Your task to perform on an android device: manage bookmarks in the chrome app Image 0: 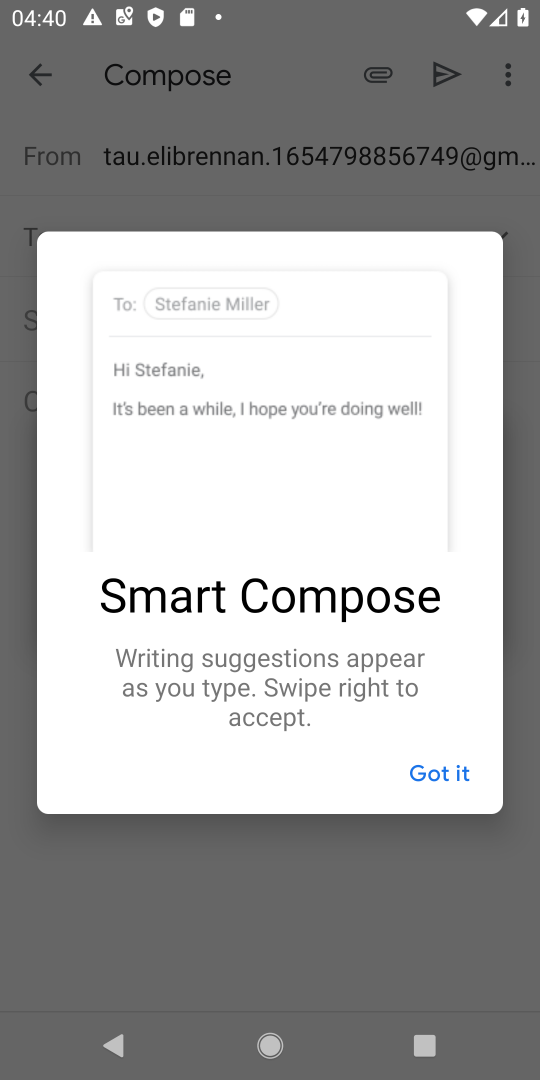
Step 0: press home button
Your task to perform on an android device: manage bookmarks in the chrome app Image 1: 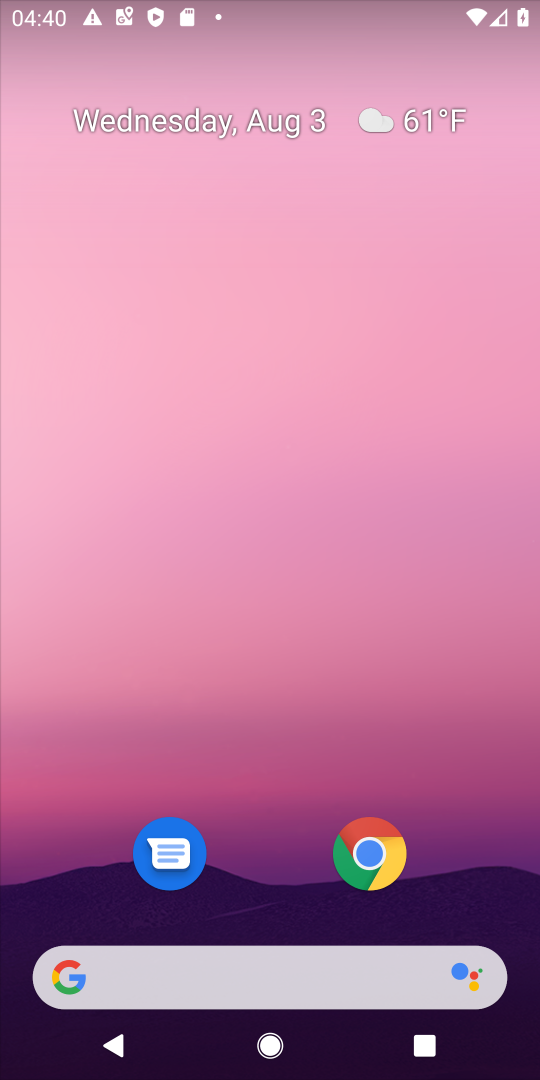
Step 1: drag from (289, 912) to (280, 71)
Your task to perform on an android device: manage bookmarks in the chrome app Image 2: 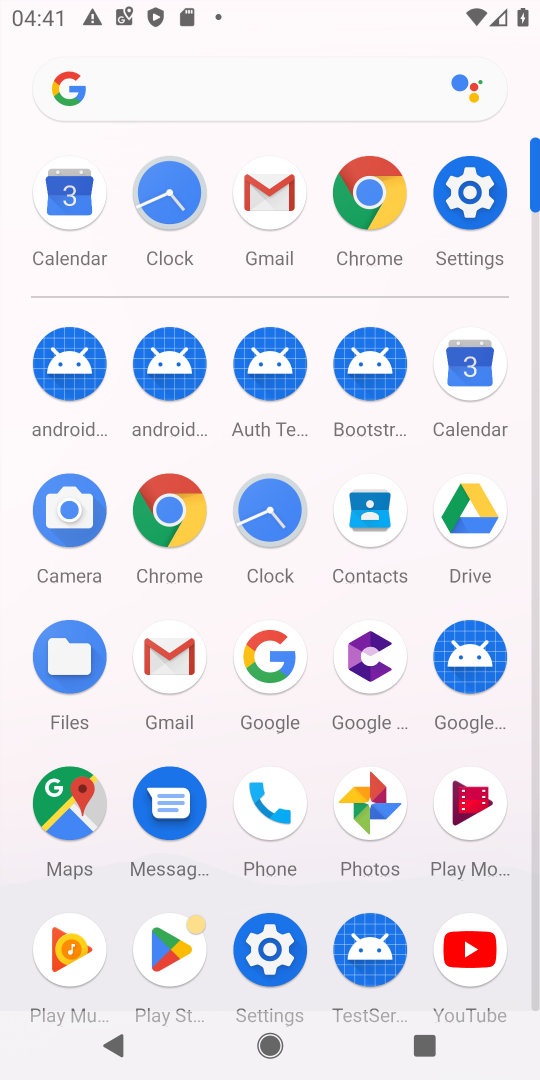
Step 2: click (369, 198)
Your task to perform on an android device: manage bookmarks in the chrome app Image 3: 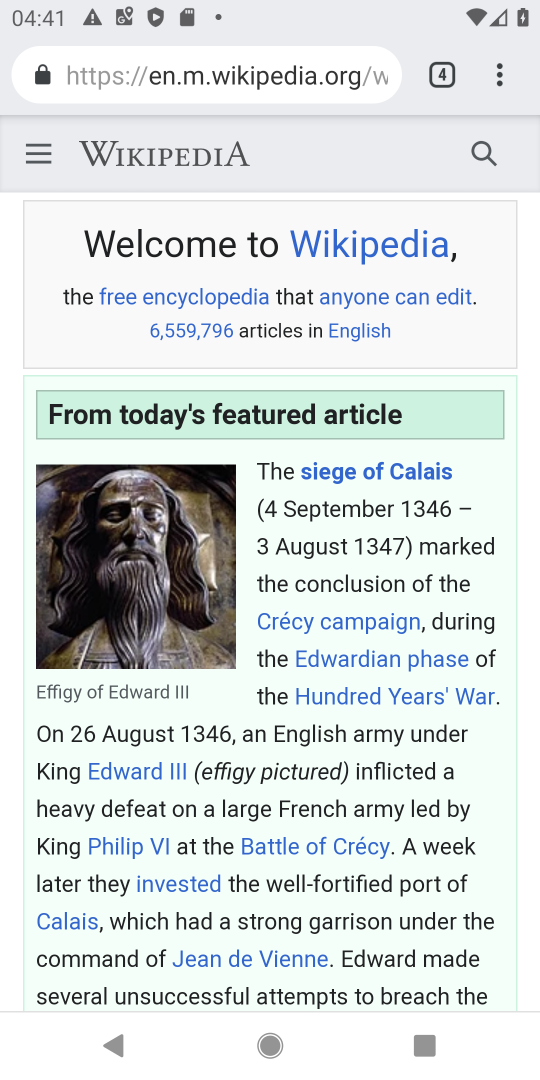
Step 3: click (501, 81)
Your task to perform on an android device: manage bookmarks in the chrome app Image 4: 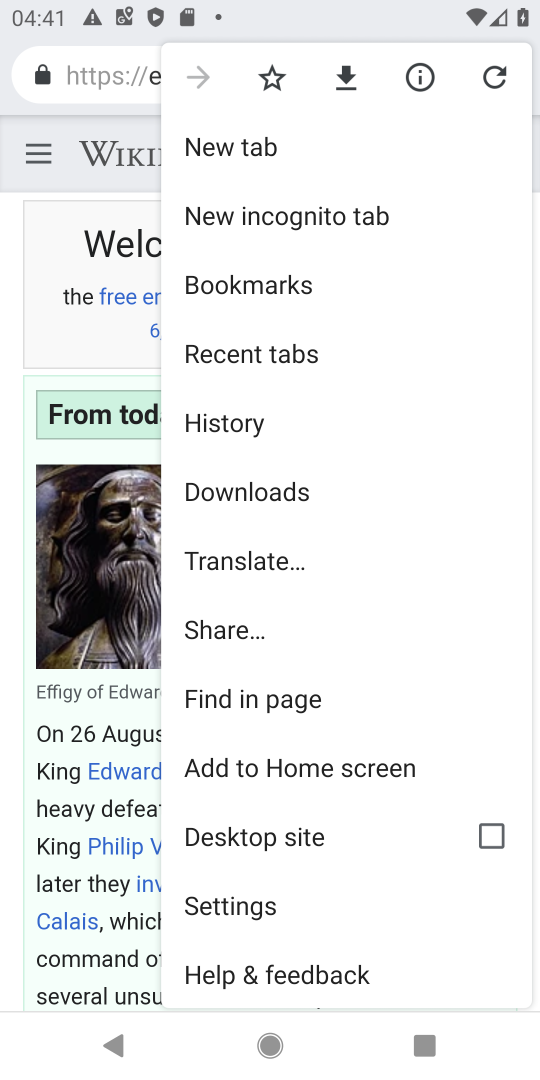
Step 4: click (253, 280)
Your task to perform on an android device: manage bookmarks in the chrome app Image 5: 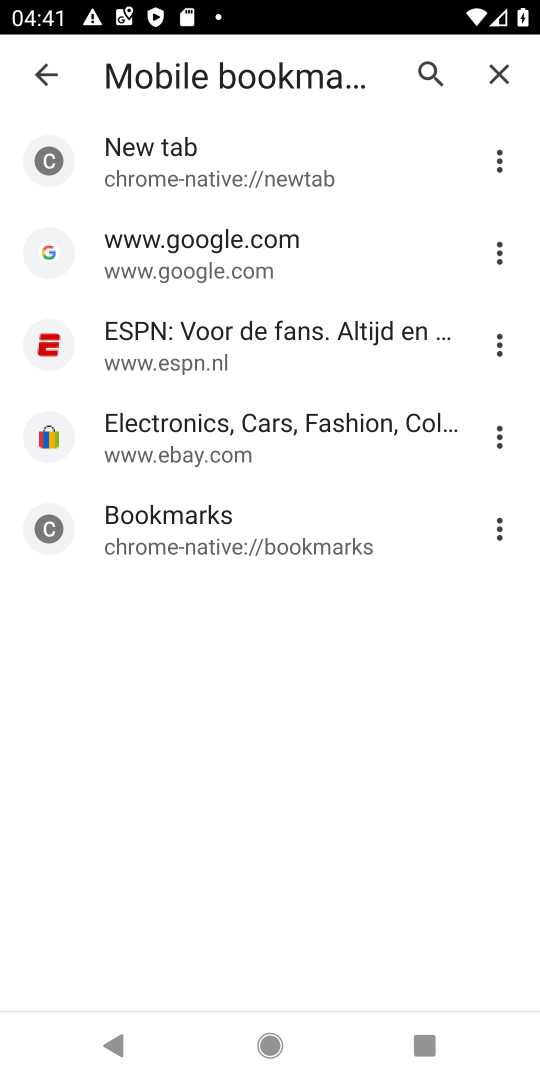
Step 5: click (498, 348)
Your task to perform on an android device: manage bookmarks in the chrome app Image 6: 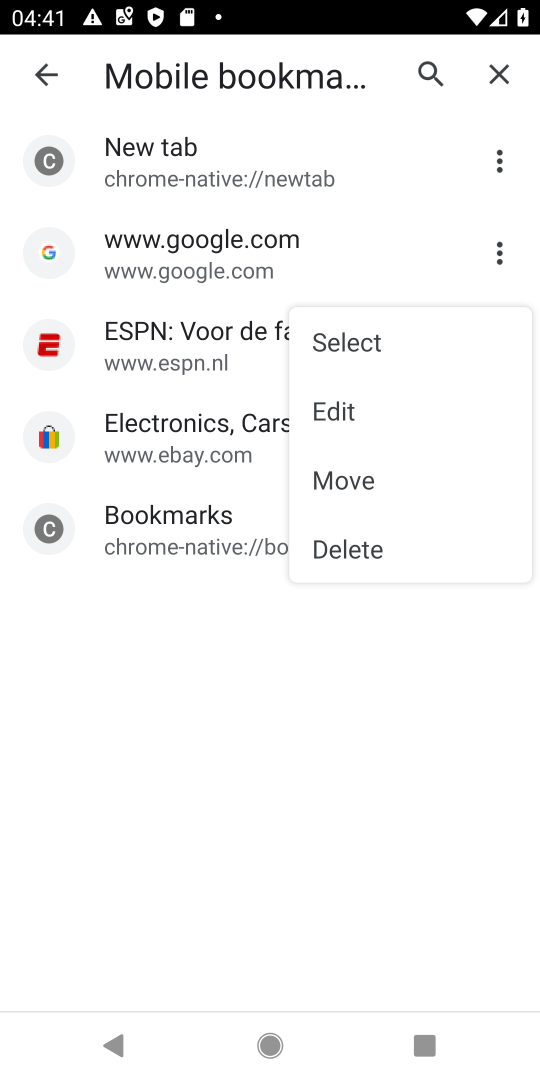
Step 6: click (340, 408)
Your task to perform on an android device: manage bookmarks in the chrome app Image 7: 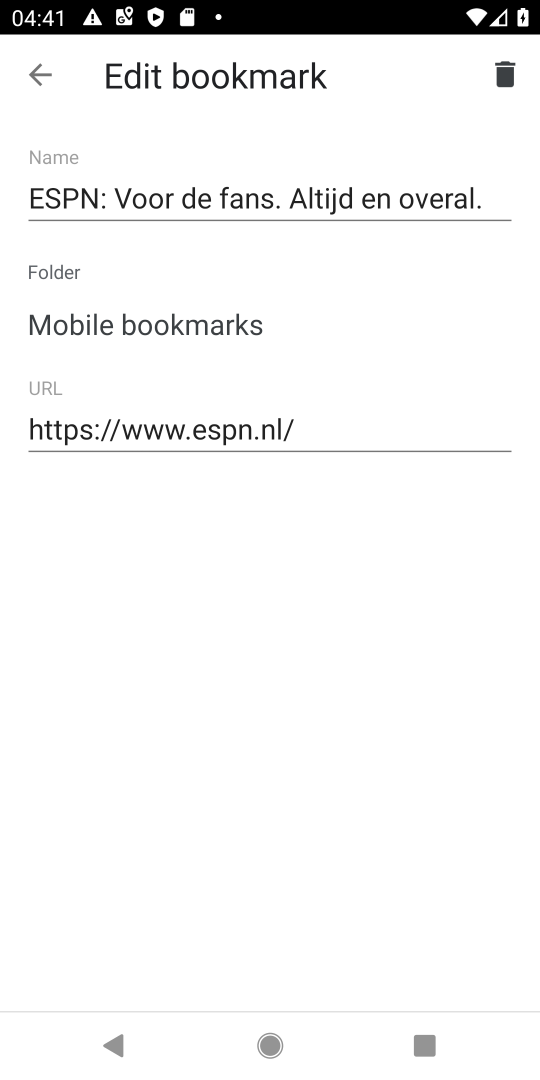
Step 7: click (330, 193)
Your task to perform on an android device: manage bookmarks in the chrome app Image 8: 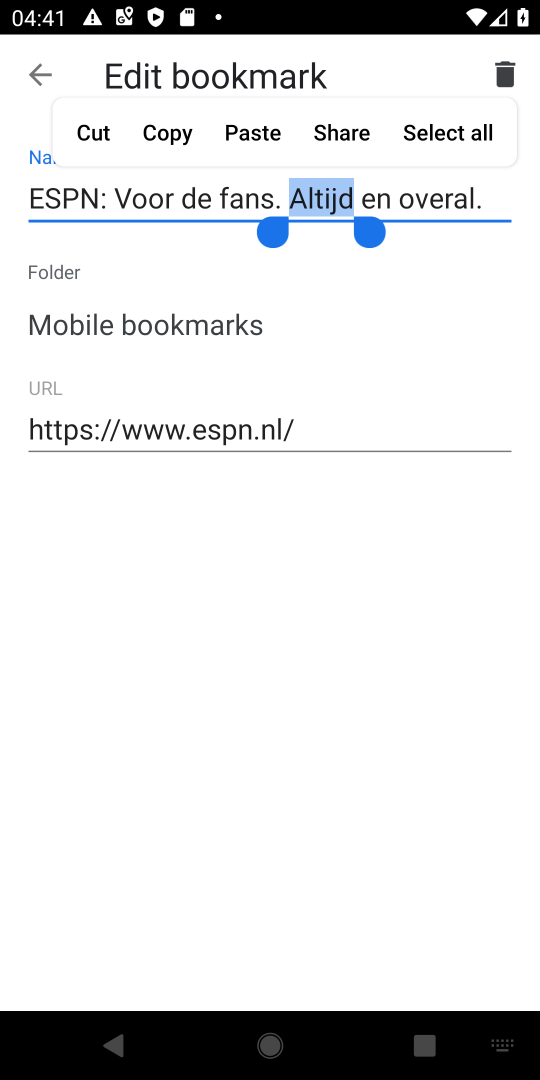
Step 8: click (83, 125)
Your task to perform on an android device: manage bookmarks in the chrome app Image 9: 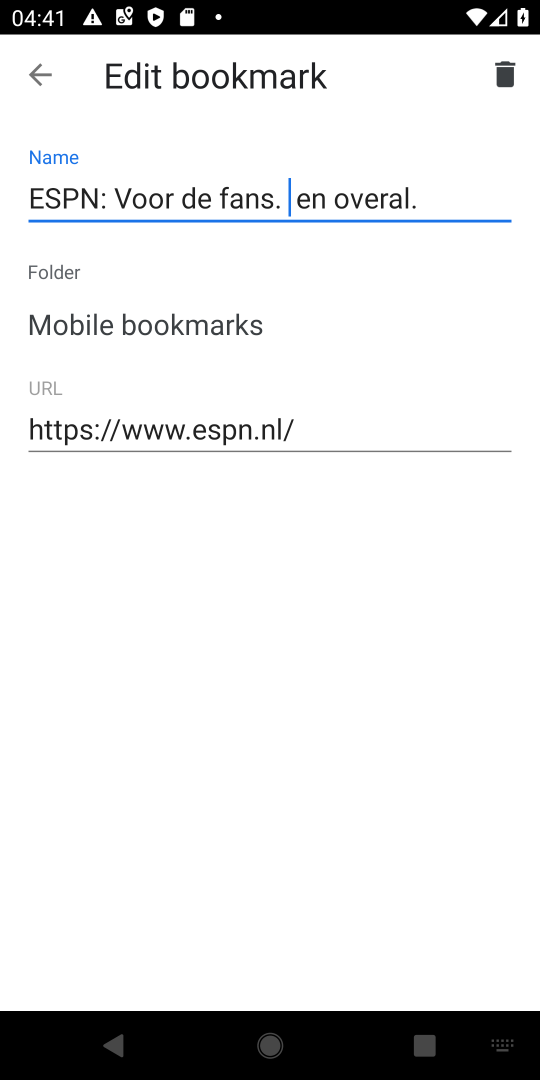
Step 9: click (32, 69)
Your task to perform on an android device: manage bookmarks in the chrome app Image 10: 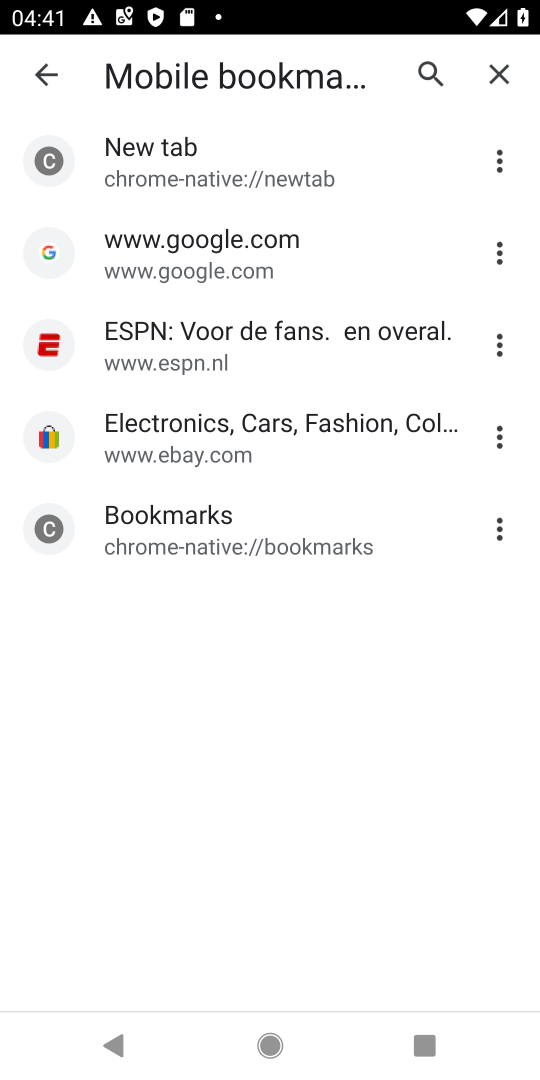
Step 10: task complete